Your task to perform on an android device: Open the phone app and click the voicemail tab. Image 0: 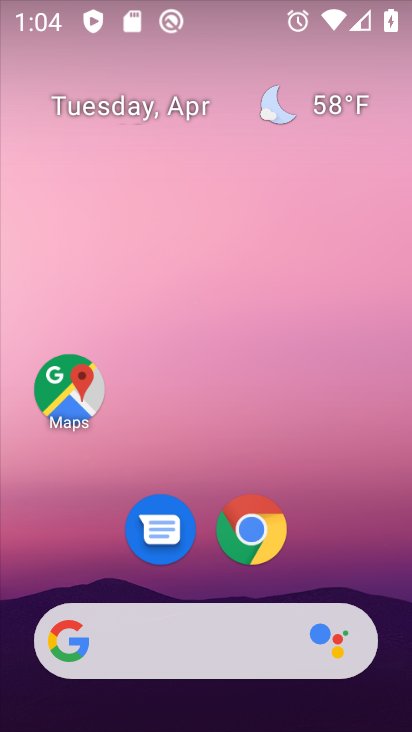
Step 0: drag from (393, 618) to (308, 168)
Your task to perform on an android device: Open the phone app and click the voicemail tab. Image 1: 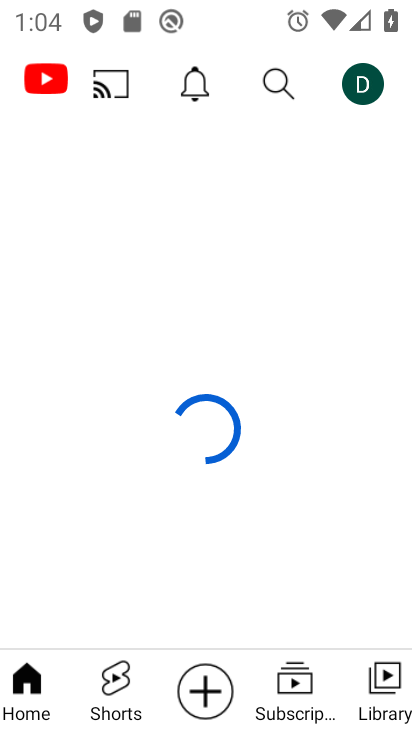
Step 1: press home button
Your task to perform on an android device: Open the phone app and click the voicemail tab. Image 2: 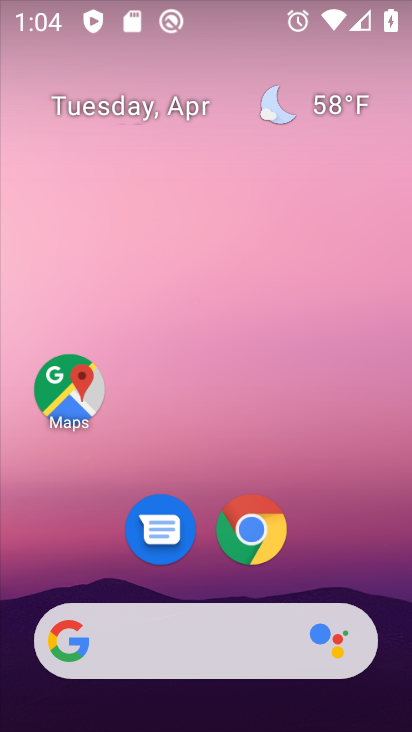
Step 2: drag from (391, 621) to (302, 128)
Your task to perform on an android device: Open the phone app and click the voicemail tab. Image 3: 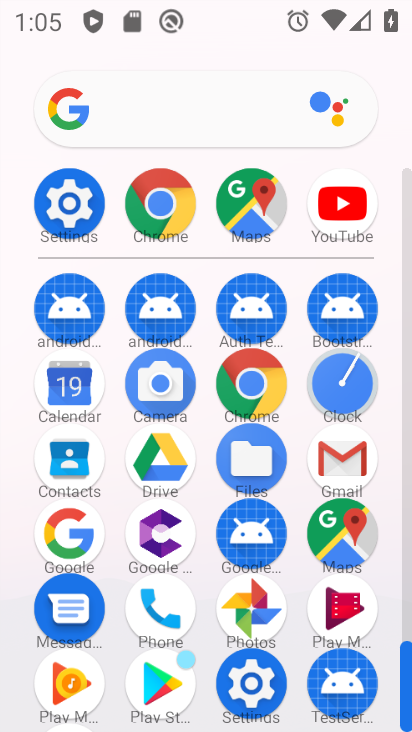
Step 3: click (175, 600)
Your task to perform on an android device: Open the phone app and click the voicemail tab. Image 4: 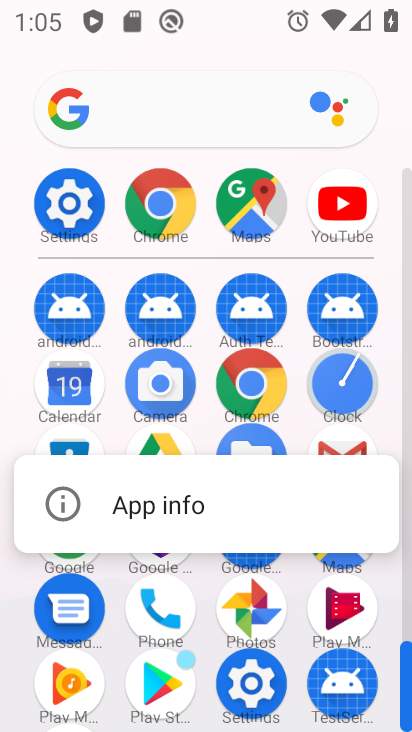
Step 4: click (175, 600)
Your task to perform on an android device: Open the phone app and click the voicemail tab. Image 5: 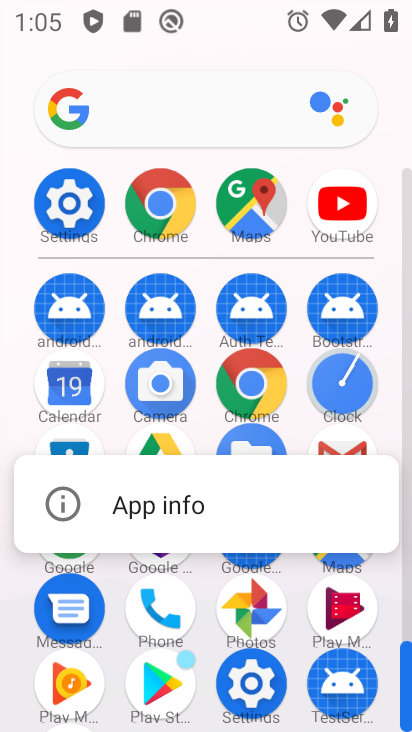
Step 5: click (166, 613)
Your task to perform on an android device: Open the phone app and click the voicemail tab. Image 6: 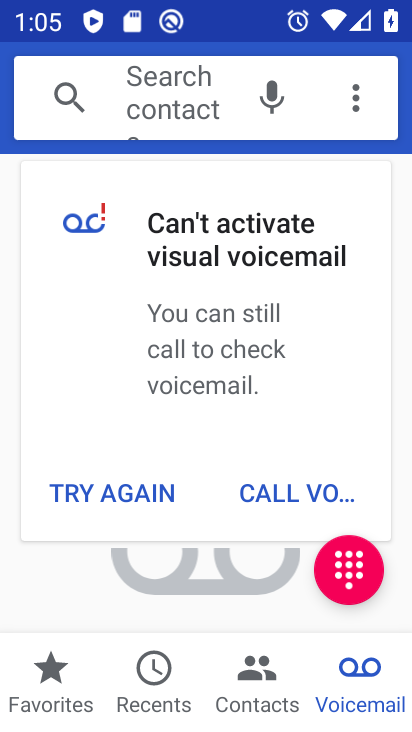
Step 6: click (336, 665)
Your task to perform on an android device: Open the phone app and click the voicemail tab. Image 7: 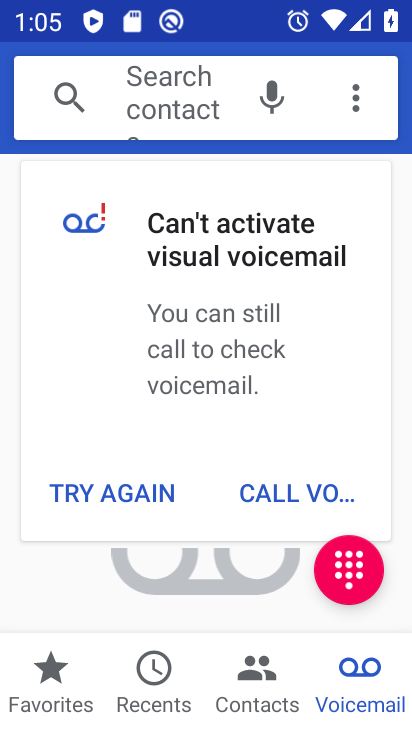
Step 7: task complete